Your task to perform on an android device: Open Chrome and go to settings Image 0: 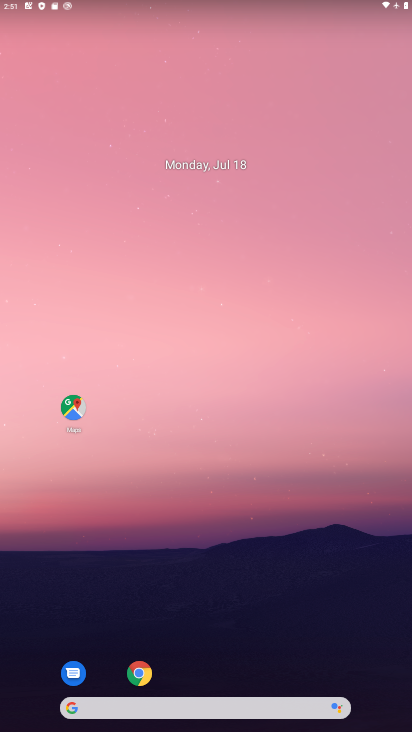
Step 0: click (132, 677)
Your task to perform on an android device: Open Chrome and go to settings Image 1: 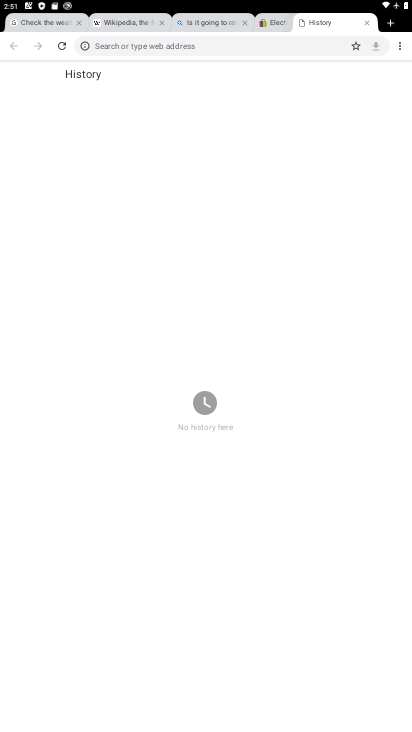
Step 1: click (397, 44)
Your task to perform on an android device: Open Chrome and go to settings Image 2: 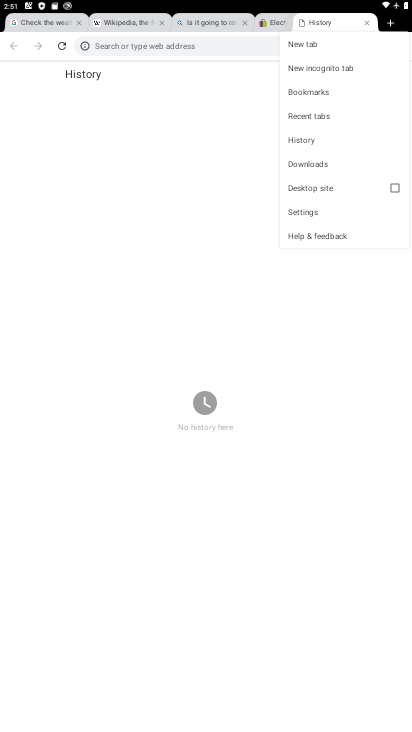
Step 2: click (303, 207)
Your task to perform on an android device: Open Chrome and go to settings Image 3: 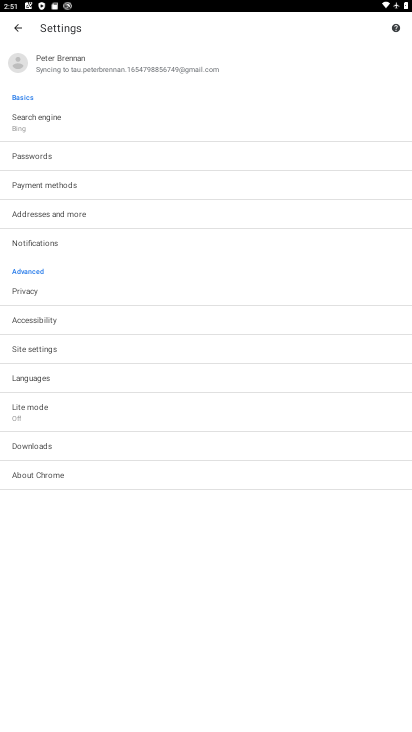
Step 3: task complete